Your task to perform on an android device: Go to calendar. Show me events next week Image 0: 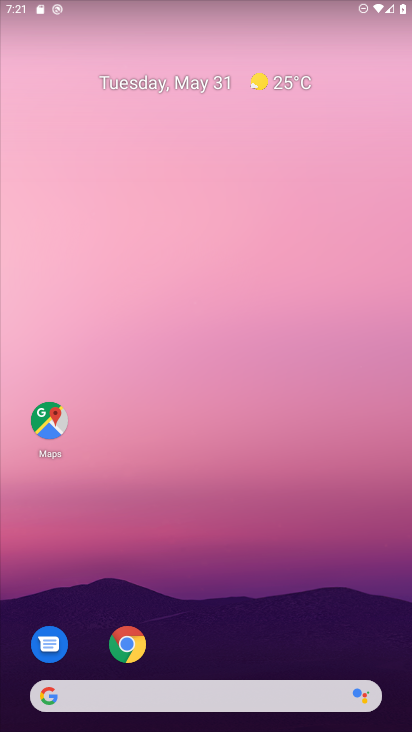
Step 0: drag from (240, 716) to (178, 176)
Your task to perform on an android device: Go to calendar. Show me events next week Image 1: 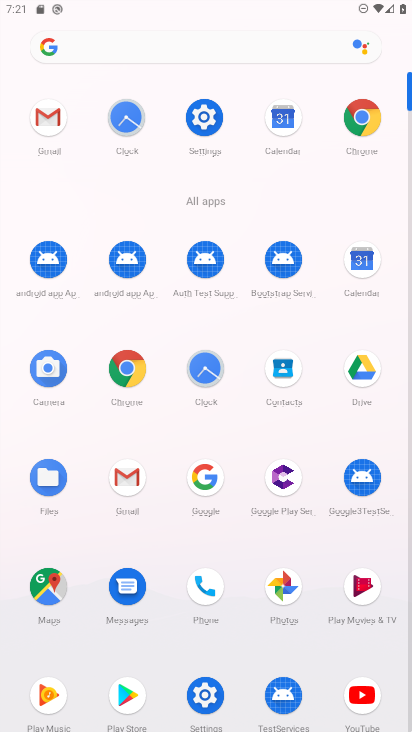
Step 1: click (367, 248)
Your task to perform on an android device: Go to calendar. Show me events next week Image 2: 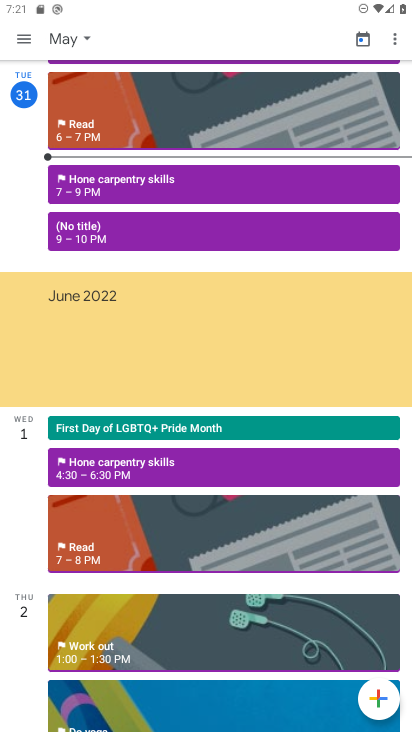
Step 2: task complete